Your task to perform on an android device: Go to Amazon Image 0: 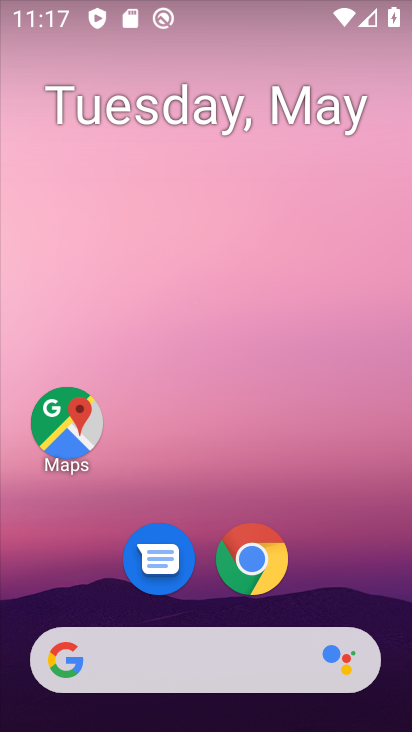
Step 0: click (261, 558)
Your task to perform on an android device: Go to Amazon Image 1: 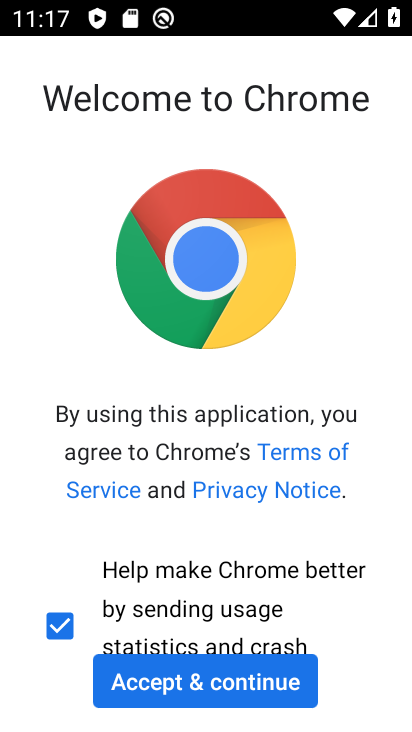
Step 1: click (243, 684)
Your task to perform on an android device: Go to Amazon Image 2: 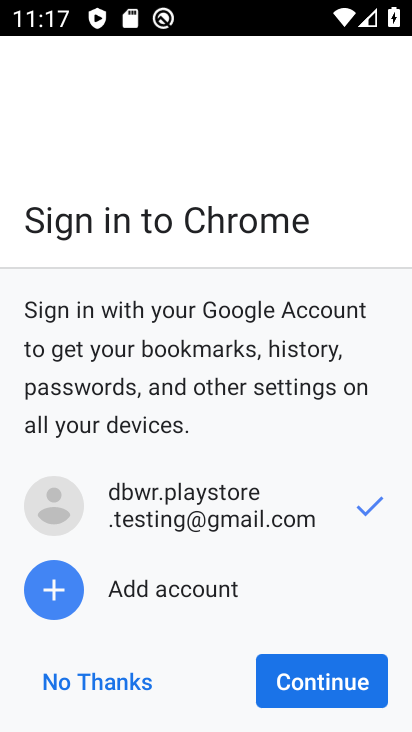
Step 2: click (308, 688)
Your task to perform on an android device: Go to Amazon Image 3: 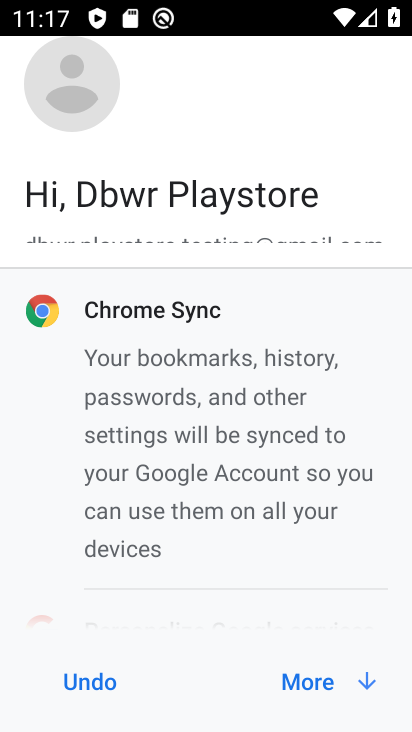
Step 3: click (308, 687)
Your task to perform on an android device: Go to Amazon Image 4: 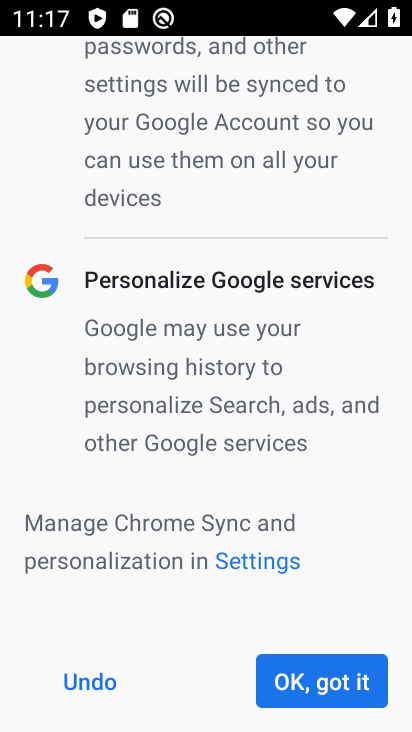
Step 4: click (308, 687)
Your task to perform on an android device: Go to Amazon Image 5: 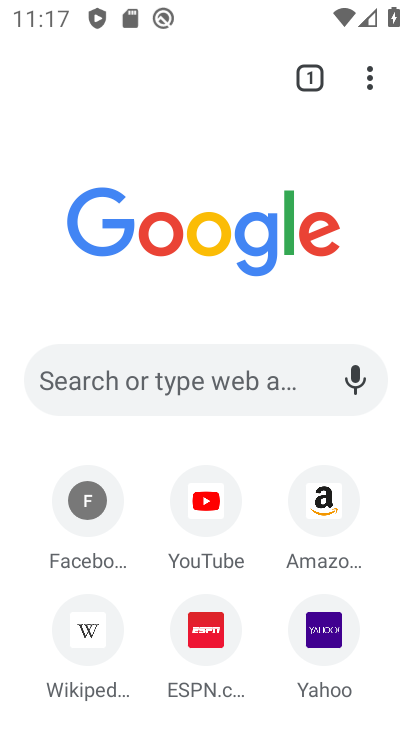
Step 5: click (342, 523)
Your task to perform on an android device: Go to Amazon Image 6: 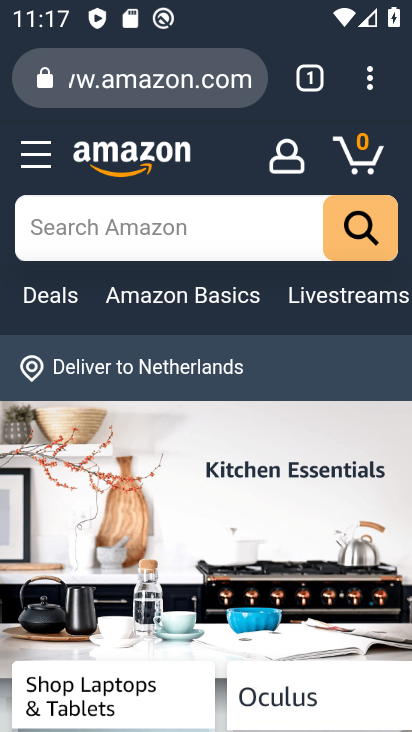
Step 6: task complete